Your task to perform on an android device: Go to Google maps Image 0: 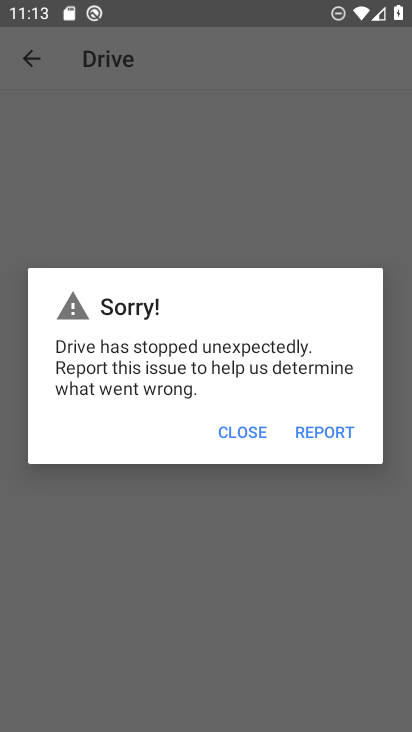
Step 0: press home button
Your task to perform on an android device: Go to Google maps Image 1: 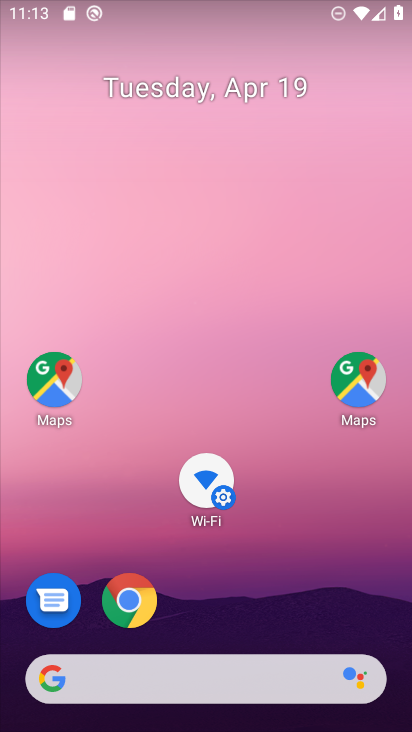
Step 1: drag from (350, 479) to (366, 31)
Your task to perform on an android device: Go to Google maps Image 2: 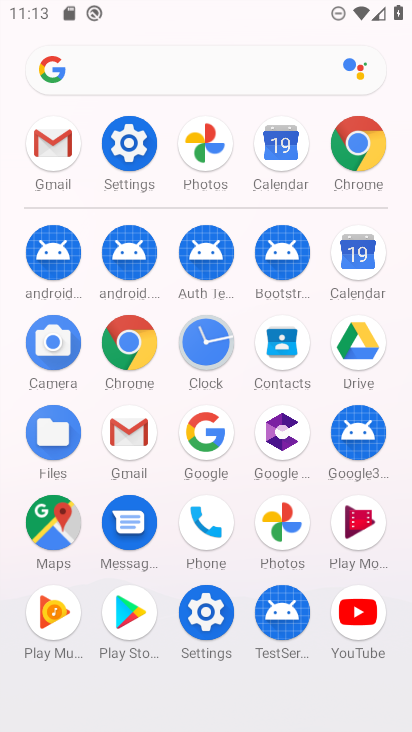
Step 2: click (50, 533)
Your task to perform on an android device: Go to Google maps Image 3: 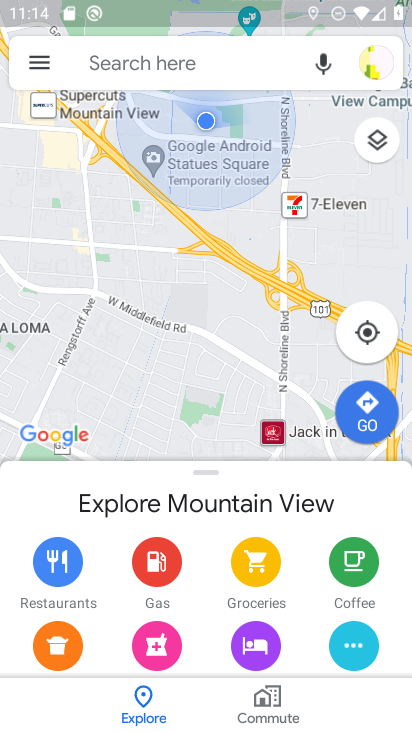
Step 3: task complete